Your task to perform on an android device: check battery use Image 0: 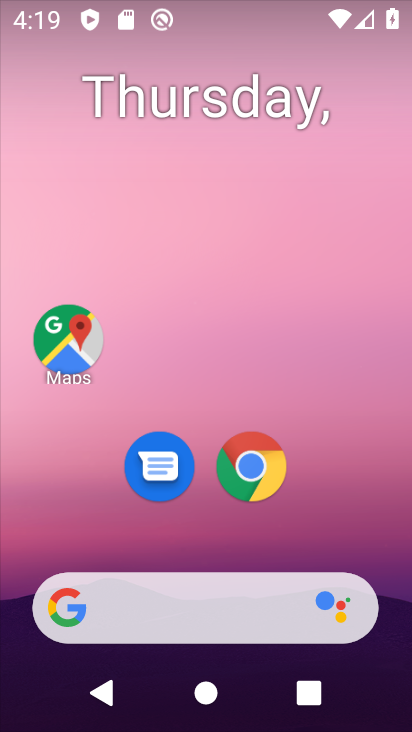
Step 0: drag from (341, 496) to (356, 46)
Your task to perform on an android device: check battery use Image 1: 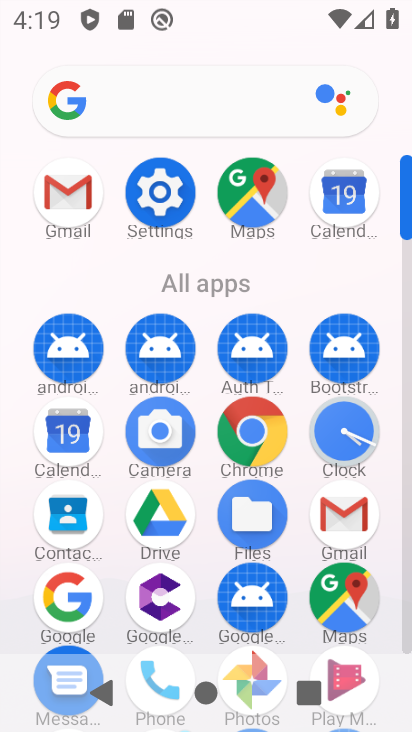
Step 1: click (148, 188)
Your task to perform on an android device: check battery use Image 2: 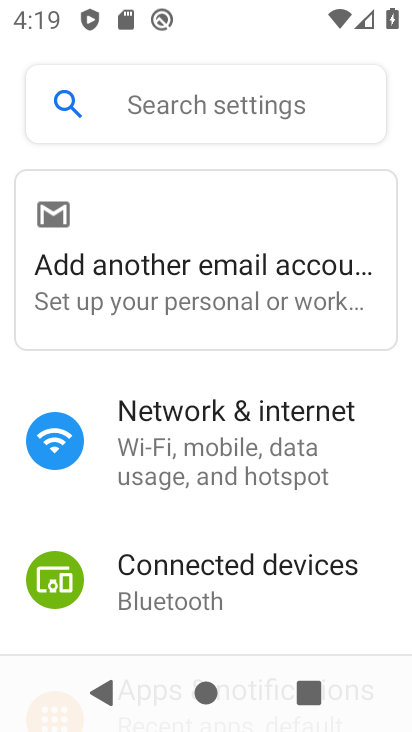
Step 2: drag from (280, 568) to (275, 150)
Your task to perform on an android device: check battery use Image 3: 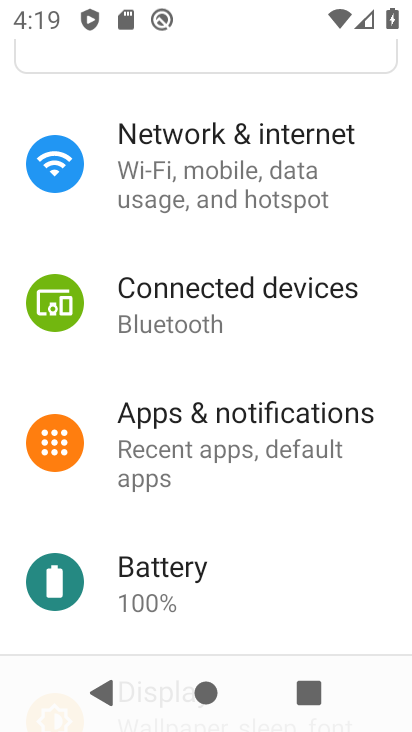
Step 3: drag from (265, 531) to (226, 131)
Your task to perform on an android device: check battery use Image 4: 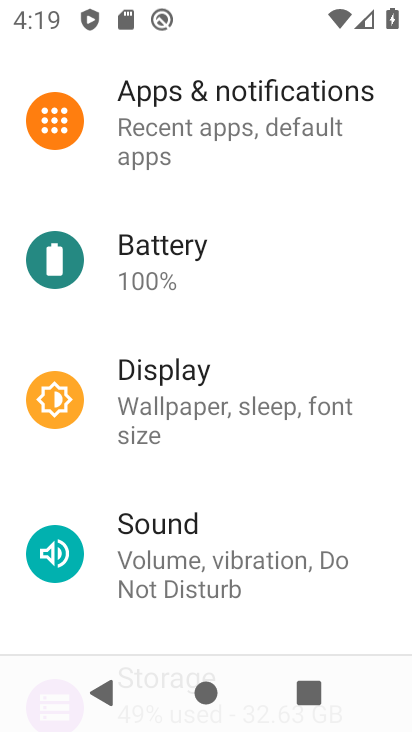
Step 4: click (121, 269)
Your task to perform on an android device: check battery use Image 5: 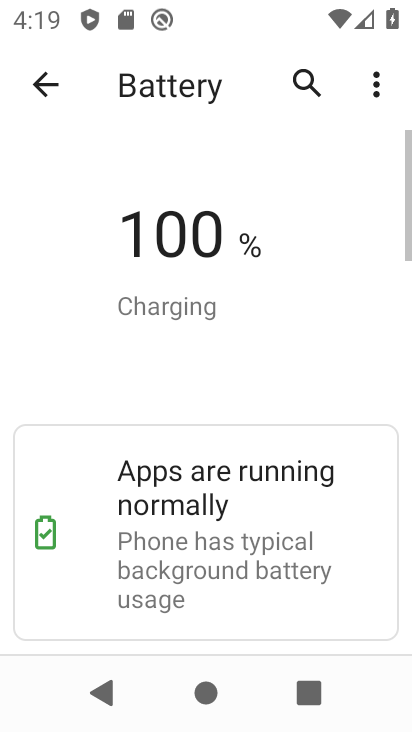
Step 5: task complete